Your task to perform on an android device: toggle pop-ups in chrome Image 0: 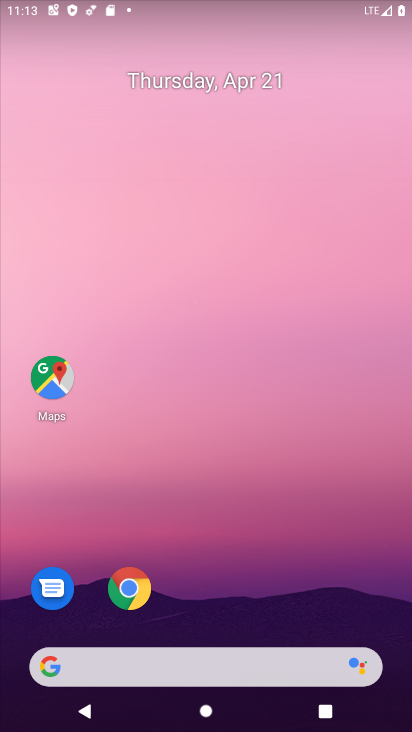
Step 0: drag from (229, 682) to (276, 89)
Your task to perform on an android device: toggle pop-ups in chrome Image 1: 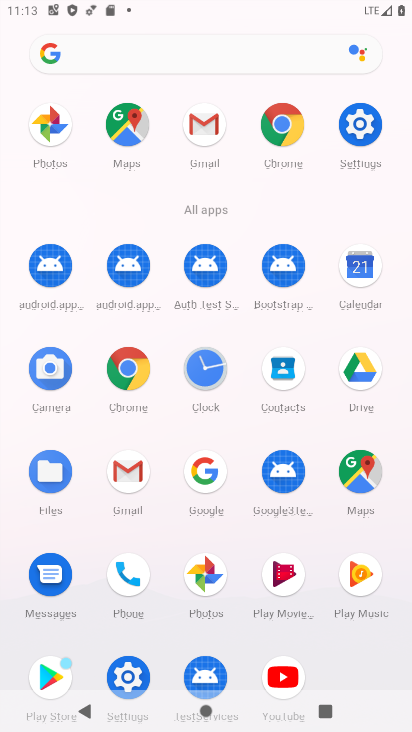
Step 1: click (273, 127)
Your task to perform on an android device: toggle pop-ups in chrome Image 2: 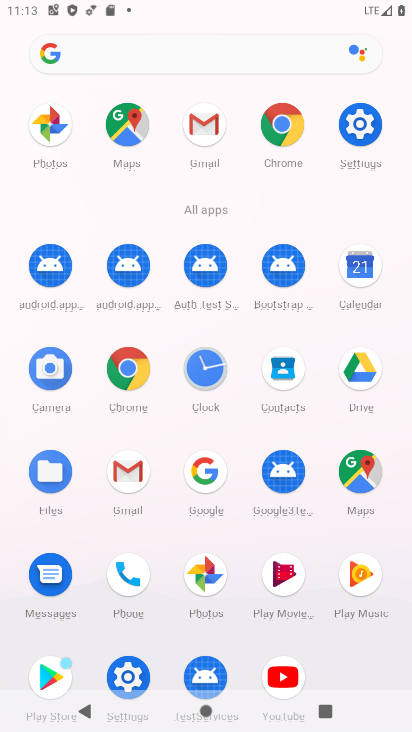
Step 2: click (278, 137)
Your task to perform on an android device: toggle pop-ups in chrome Image 3: 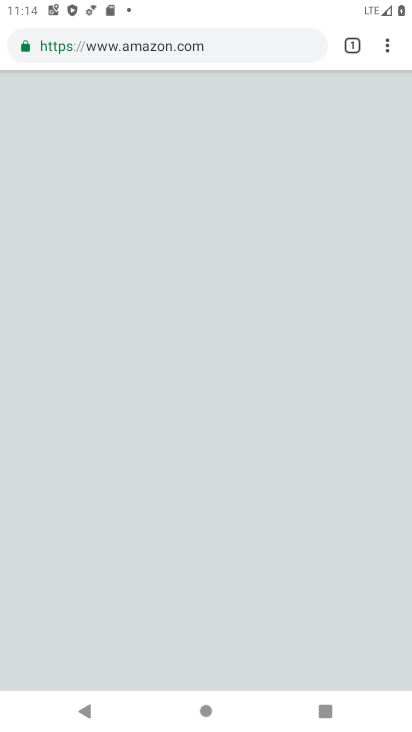
Step 3: click (384, 48)
Your task to perform on an android device: toggle pop-ups in chrome Image 4: 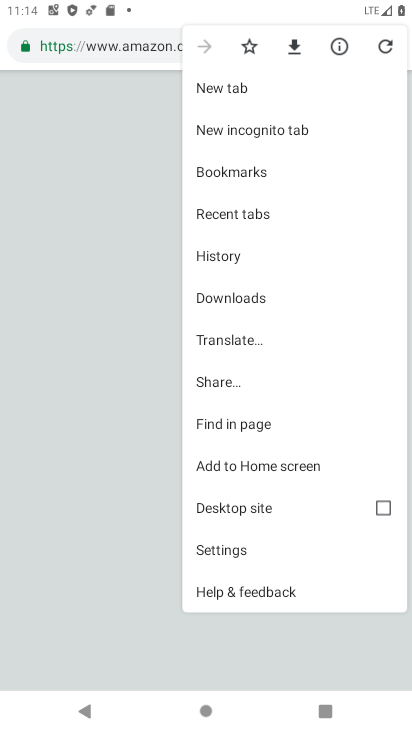
Step 4: click (214, 548)
Your task to perform on an android device: toggle pop-ups in chrome Image 5: 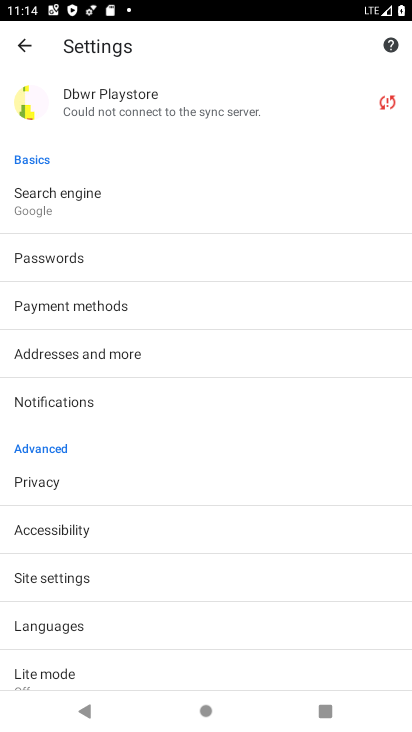
Step 5: click (51, 577)
Your task to perform on an android device: toggle pop-ups in chrome Image 6: 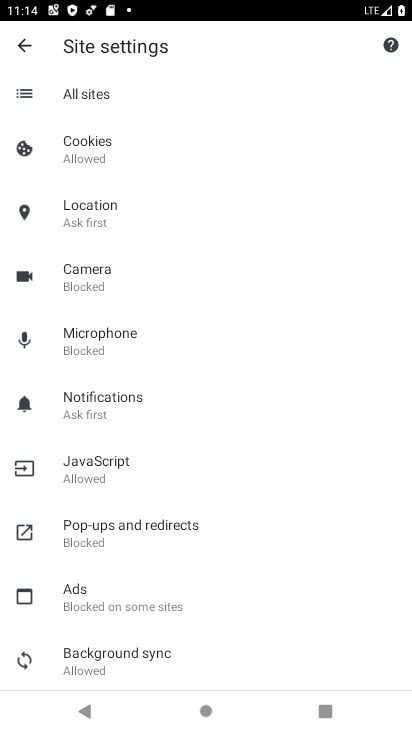
Step 6: click (169, 535)
Your task to perform on an android device: toggle pop-ups in chrome Image 7: 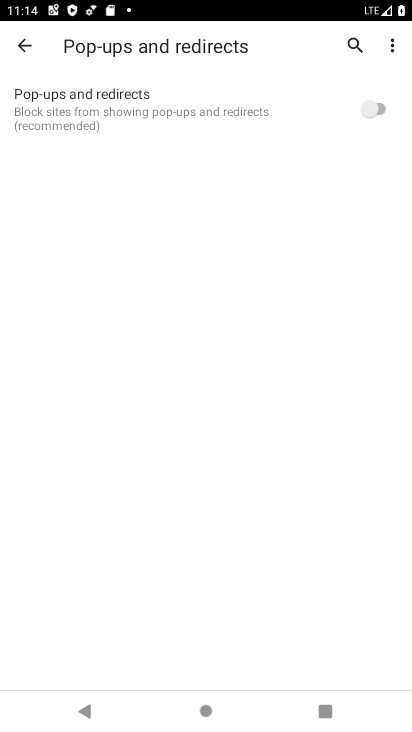
Step 7: click (247, 106)
Your task to perform on an android device: toggle pop-ups in chrome Image 8: 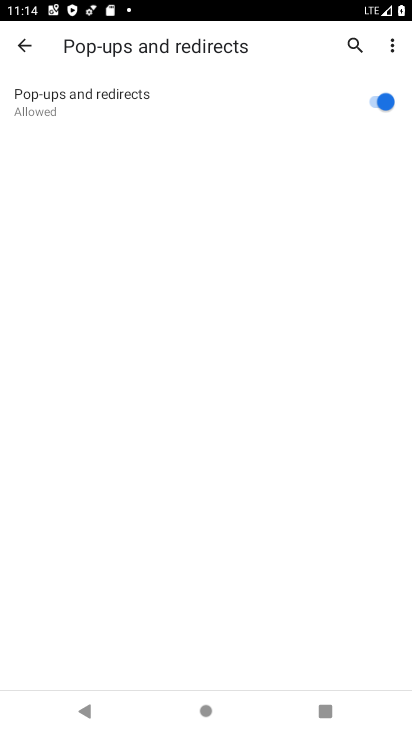
Step 8: click (247, 106)
Your task to perform on an android device: toggle pop-ups in chrome Image 9: 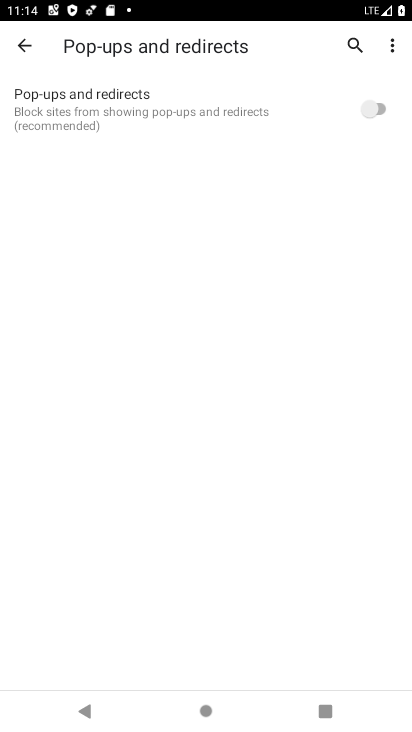
Step 9: task complete